Your task to perform on an android device: Go to location settings Image 0: 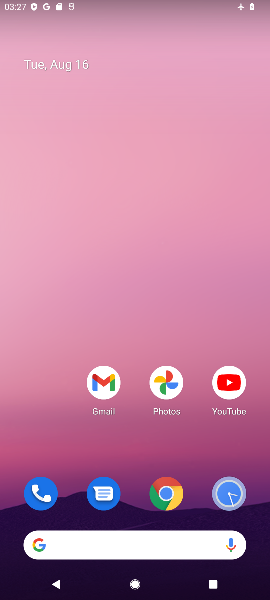
Step 0: press home button
Your task to perform on an android device: Go to location settings Image 1: 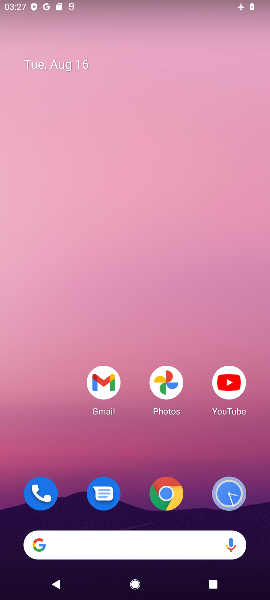
Step 1: drag from (64, 460) to (77, 169)
Your task to perform on an android device: Go to location settings Image 2: 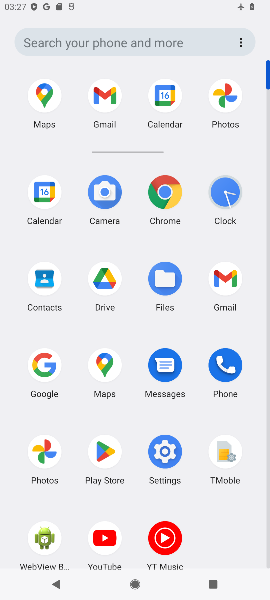
Step 2: click (167, 457)
Your task to perform on an android device: Go to location settings Image 3: 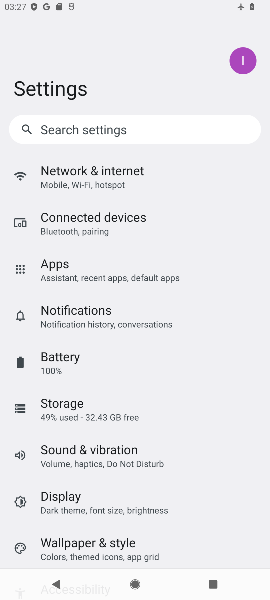
Step 3: drag from (230, 440) to (234, 364)
Your task to perform on an android device: Go to location settings Image 4: 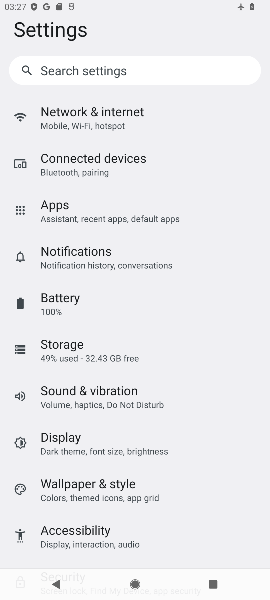
Step 4: drag from (214, 489) to (229, 402)
Your task to perform on an android device: Go to location settings Image 5: 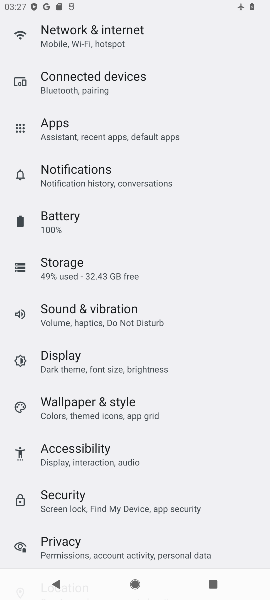
Step 5: drag from (234, 521) to (245, 442)
Your task to perform on an android device: Go to location settings Image 6: 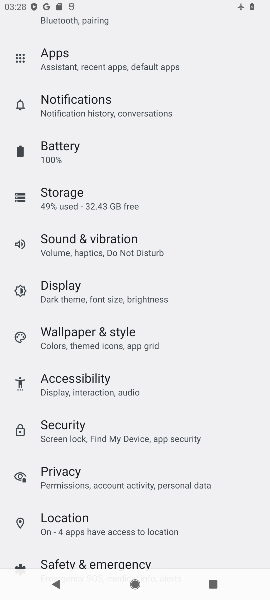
Step 6: drag from (233, 525) to (245, 432)
Your task to perform on an android device: Go to location settings Image 7: 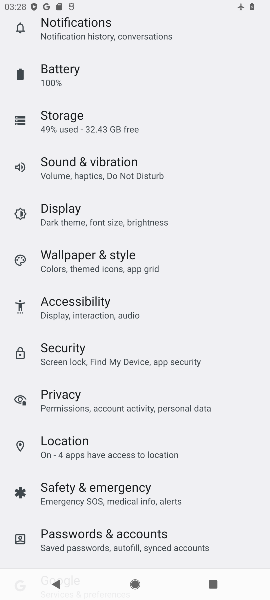
Step 7: drag from (235, 531) to (237, 468)
Your task to perform on an android device: Go to location settings Image 8: 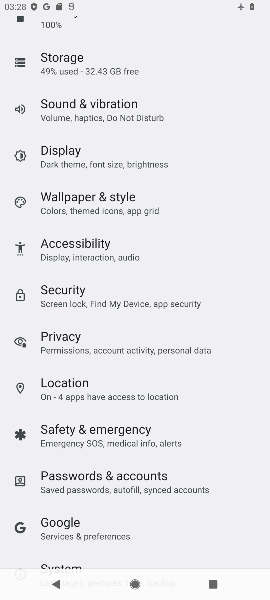
Step 8: drag from (240, 529) to (246, 439)
Your task to perform on an android device: Go to location settings Image 9: 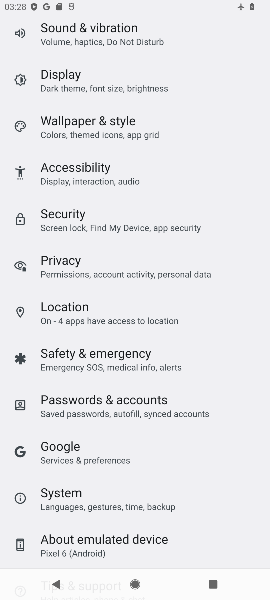
Step 9: drag from (226, 526) to (235, 415)
Your task to perform on an android device: Go to location settings Image 10: 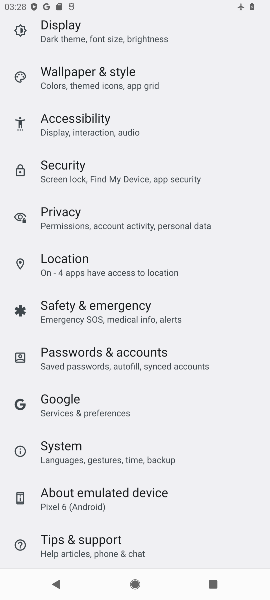
Step 10: drag from (250, 323) to (251, 408)
Your task to perform on an android device: Go to location settings Image 11: 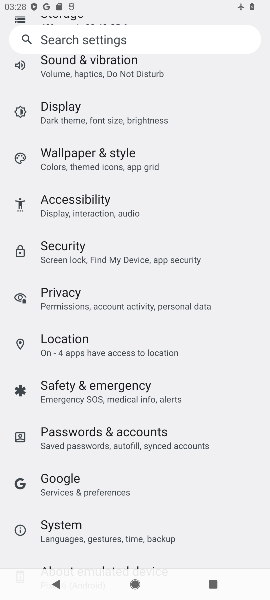
Step 11: drag from (241, 305) to (238, 389)
Your task to perform on an android device: Go to location settings Image 12: 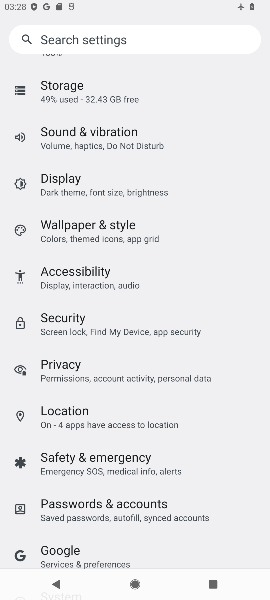
Step 12: click (180, 428)
Your task to perform on an android device: Go to location settings Image 13: 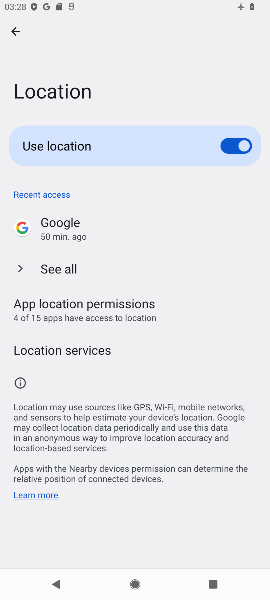
Step 13: task complete